Your task to perform on an android device: find which apps use the phone's location Image 0: 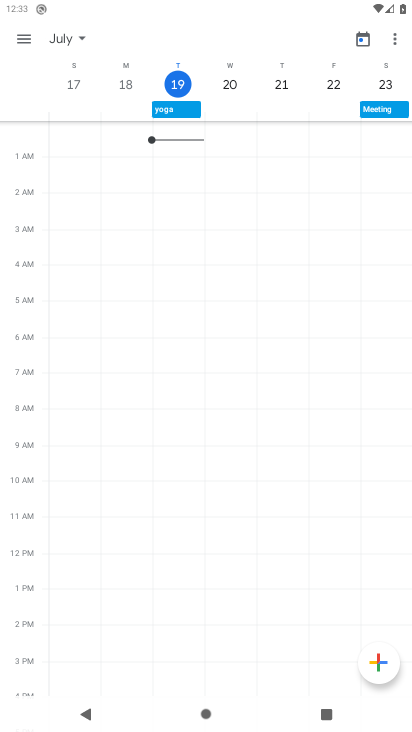
Step 0: press home button
Your task to perform on an android device: find which apps use the phone's location Image 1: 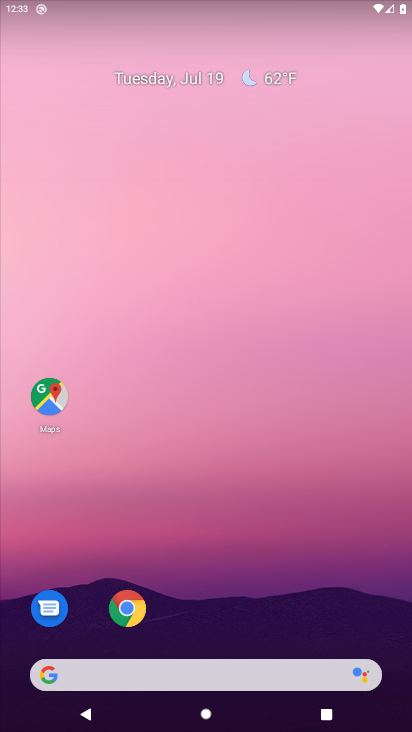
Step 1: drag from (213, 634) to (281, 3)
Your task to perform on an android device: find which apps use the phone's location Image 2: 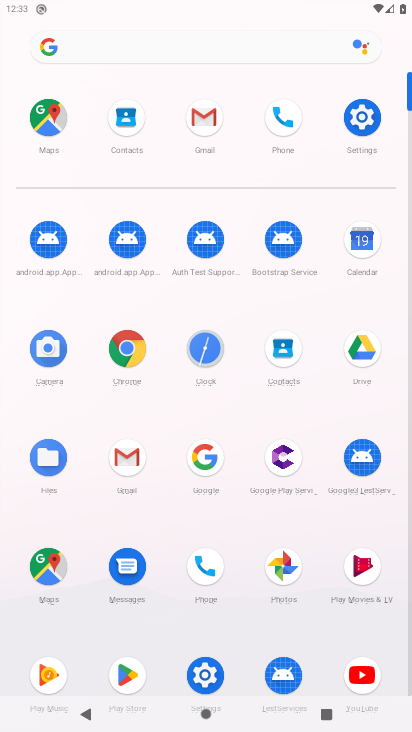
Step 2: click (355, 111)
Your task to perform on an android device: find which apps use the phone's location Image 3: 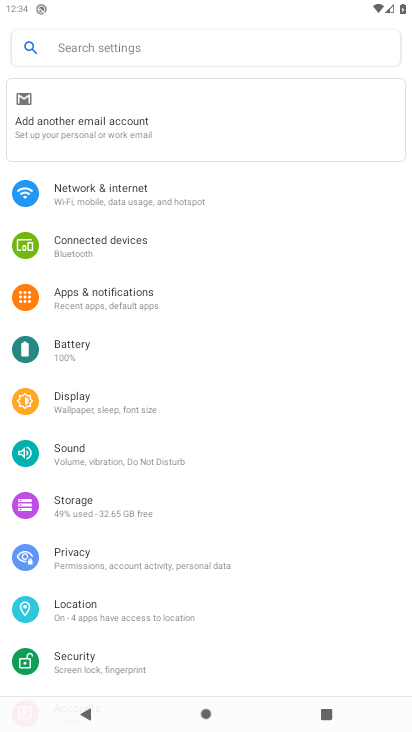
Step 3: click (109, 604)
Your task to perform on an android device: find which apps use the phone's location Image 4: 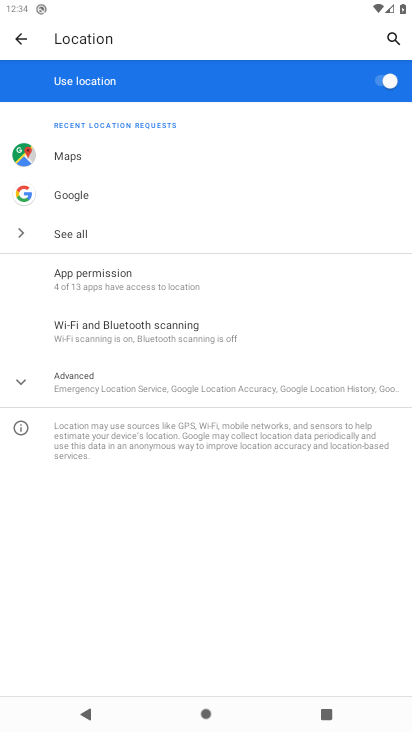
Step 4: click (100, 276)
Your task to perform on an android device: find which apps use the phone's location Image 5: 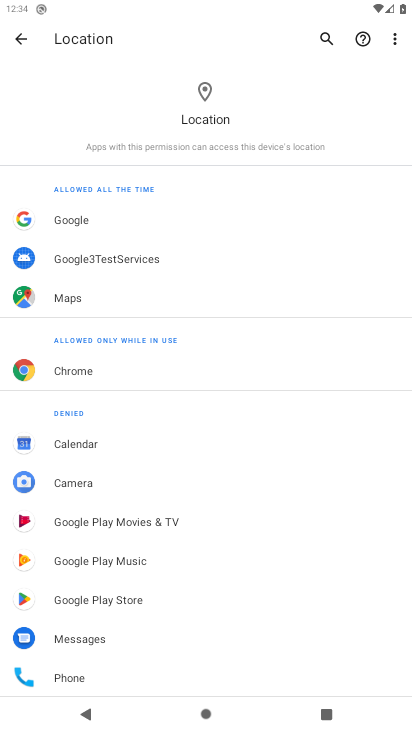
Step 5: task complete